Your task to perform on an android device: move a message to another label in the gmail app Image 0: 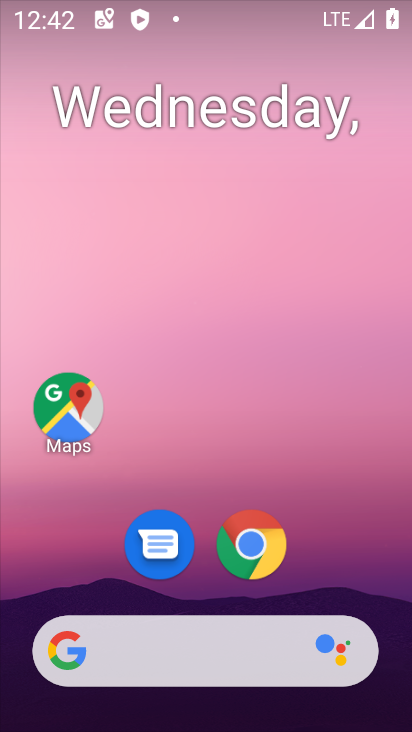
Step 0: drag from (398, 641) to (261, 34)
Your task to perform on an android device: move a message to another label in the gmail app Image 1: 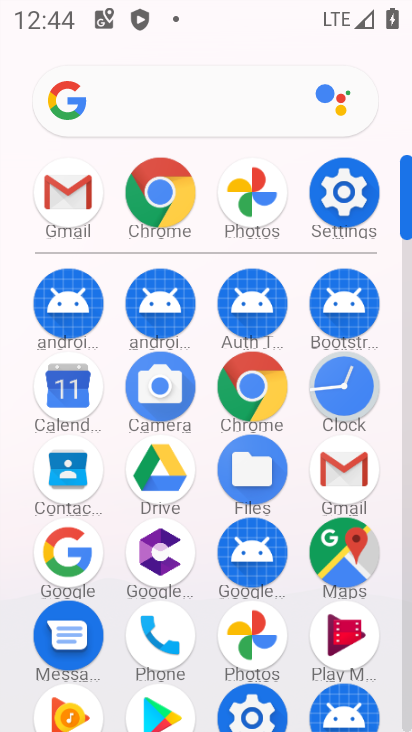
Step 1: click (363, 471)
Your task to perform on an android device: move a message to another label in the gmail app Image 2: 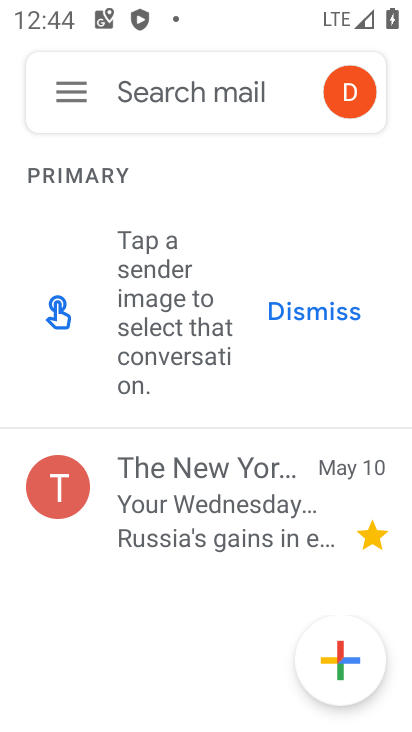
Step 2: task complete